Your task to perform on an android device: set an alarm Image 0: 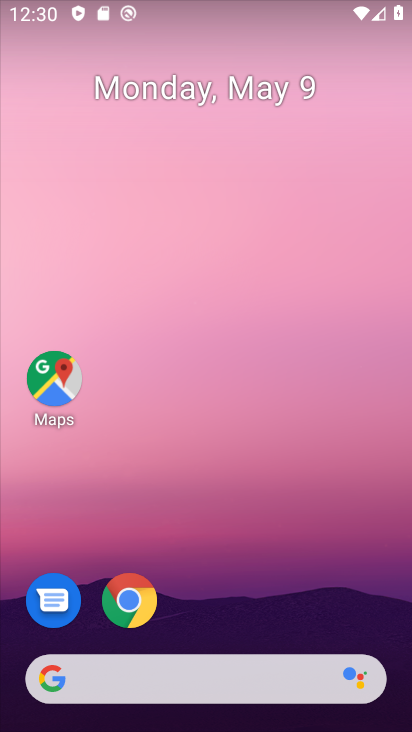
Step 0: drag from (267, 573) to (304, 33)
Your task to perform on an android device: set an alarm Image 1: 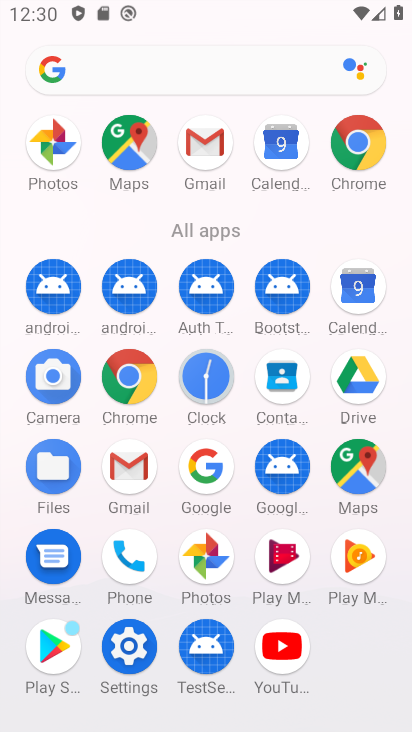
Step 1: click (221, 389)
Your task to perform on an android device: set an alarm Image 2: 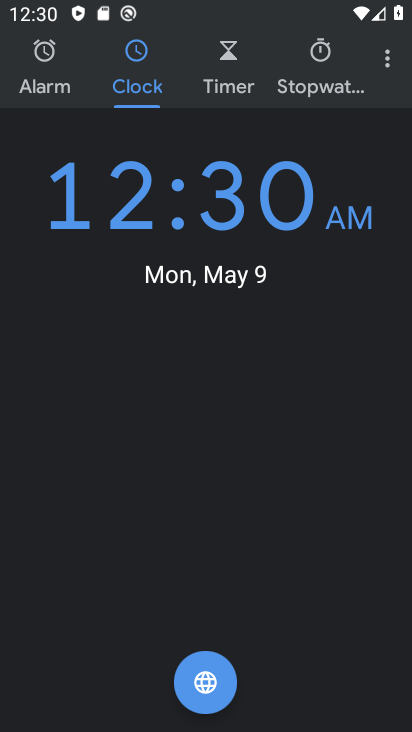
Step 2: click (54, 72)
Your task to perform on an android device: set an alarm Image 3: 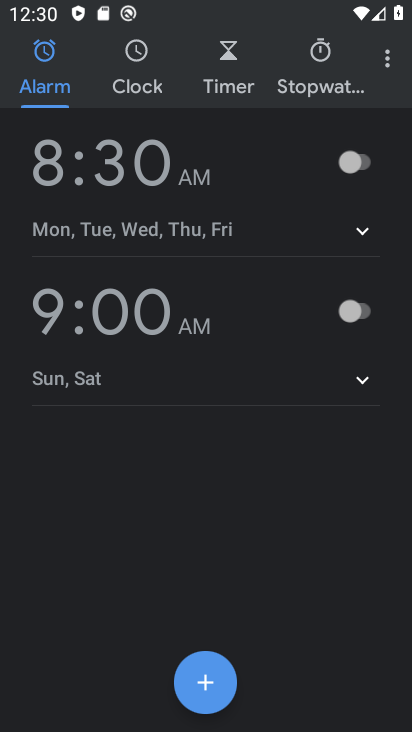
Step 3: click (226, 318)
Your task to perform on an android device: set an alarm Image 4: 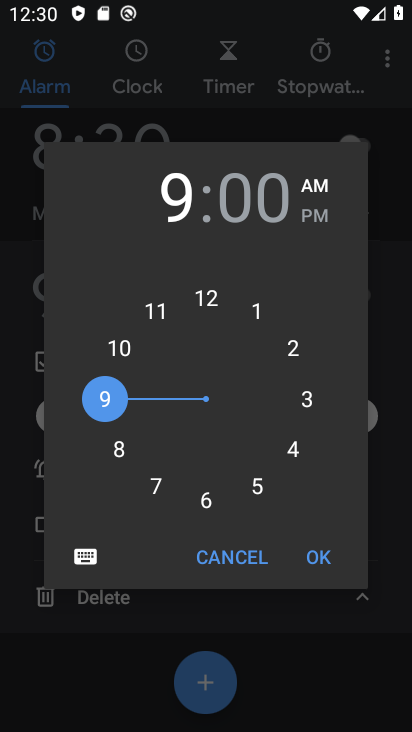
Step 4: click (318, 540)
Your task to perform on an android device: set an alarm Image 5: 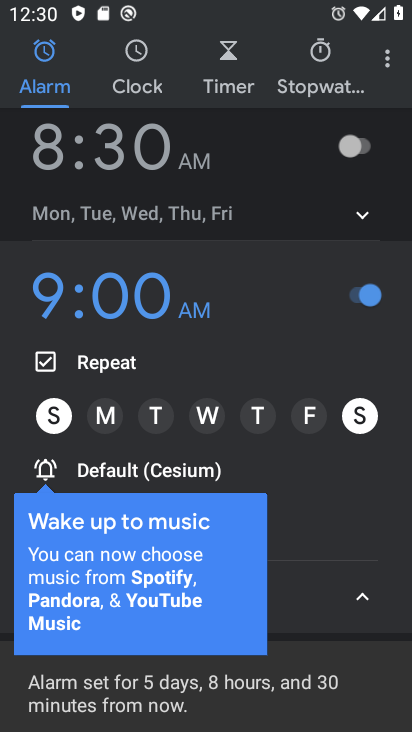
Step 5: task complete